Your task to perform on an android device: Open calendar and show me the fourth week of next month Image 0: 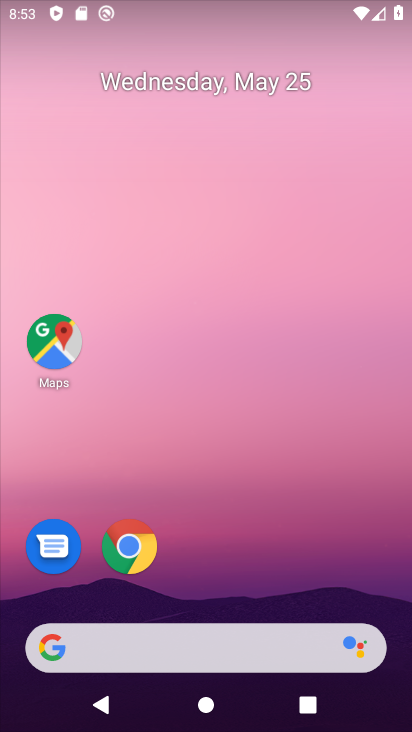
Step 0: drag from (341, 584) to (279, 298)
Your task to perform on an android device: Open calendar and show me the fourth week of next month Image 1: 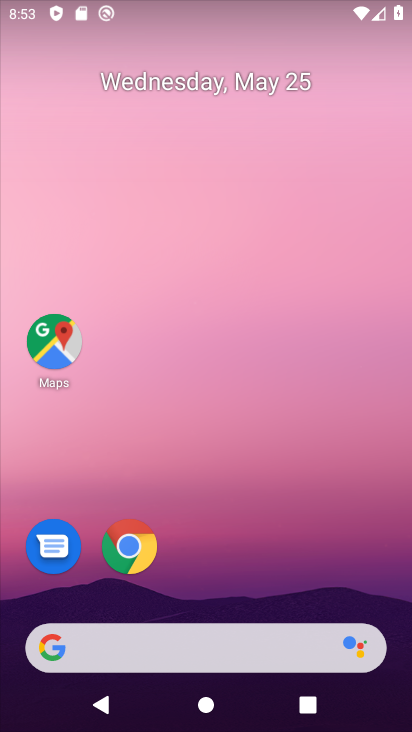
Step 1: drag from (199, 437) to (206, 152)
Your task to perform on an android device: Open calendar and show me the fourth week of next month Image 2: 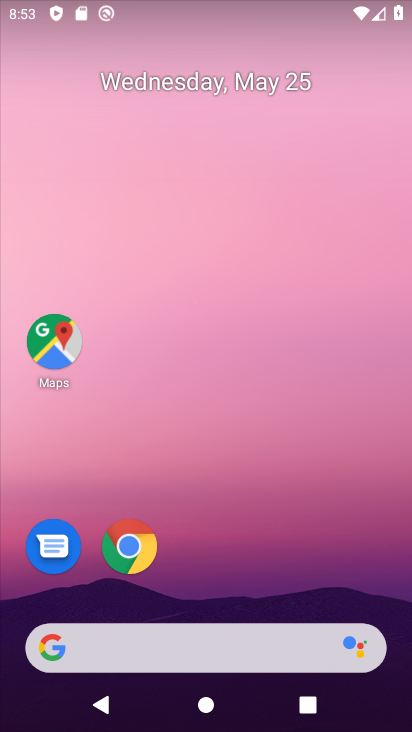
Step 2: drag from (274, 606) to (280, 266)
Your task to perform on an android device: Open calendar and show me the fourth week of next month Image 3: 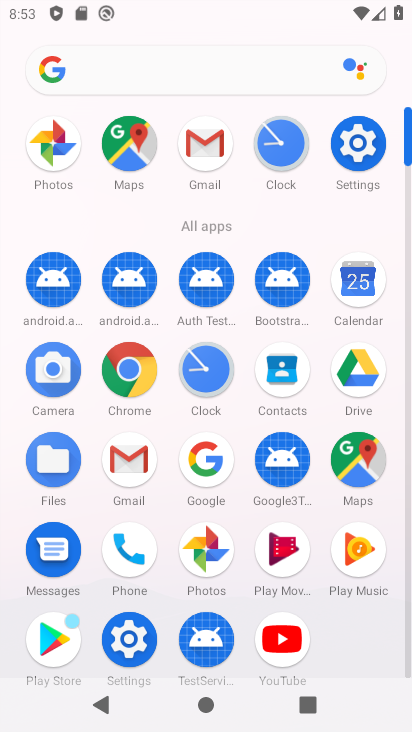
Step 3: click (369, 280)
Your task to perform on an android device: Open calendar and show me the fourth week of next month Image 4: 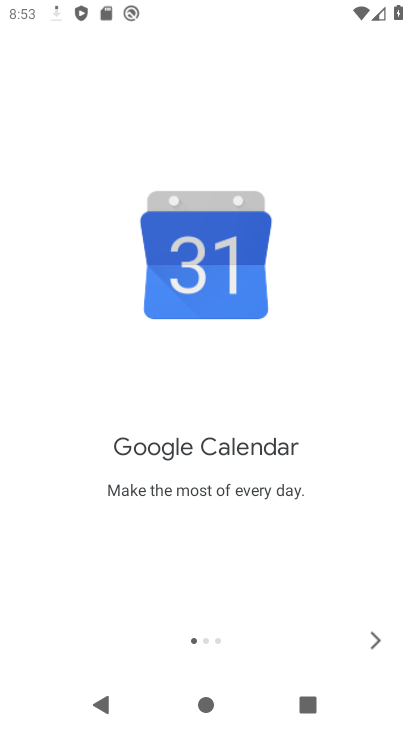
Step 4: click (369, 637)
Your task to perform on an android device: Open calendar and show me the fourth week of next month Image 5: 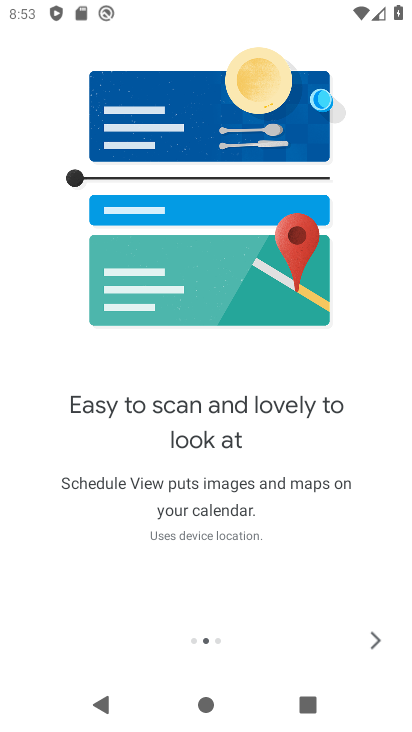
Step 5: click (369, 637)
Your task to perform on an android device: Open calendar and show me the fourth week of next month Image 6: 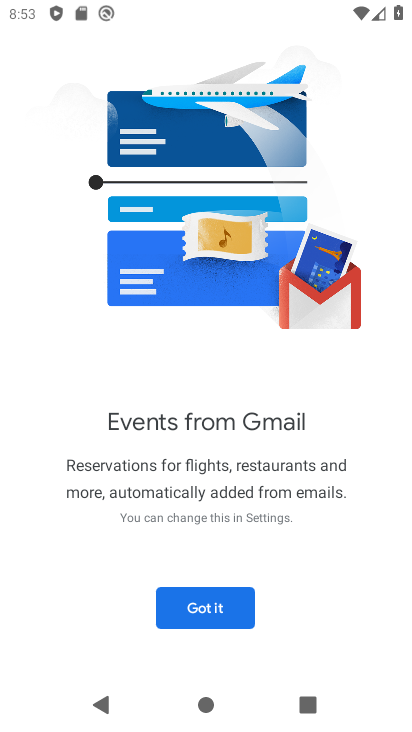
Step 6: click (367, 635)
Your task to perform on an android device: Open calendar and show me the fourth week of next month Image 7: 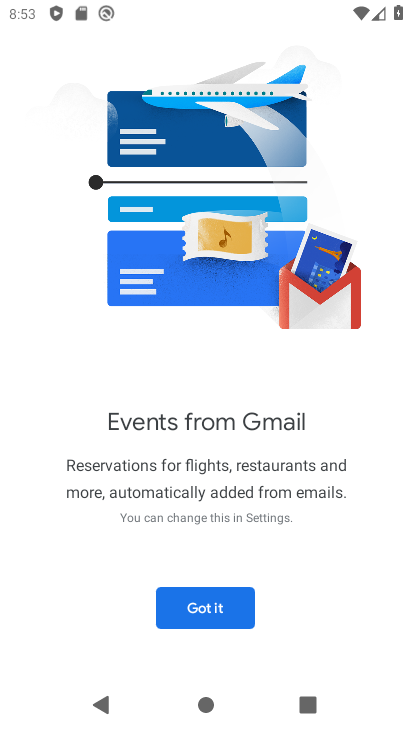
Step 7: click (224, 607)
Your task to perform on an android device: Open calendar and show me the fourth week of next month Image 8: 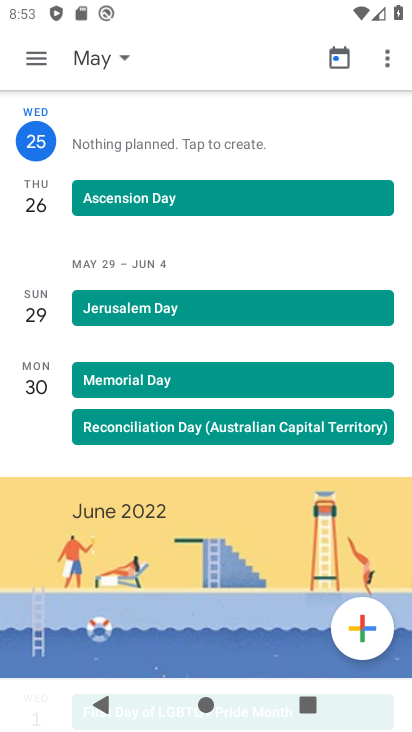
Step 8: click (35, 63)
Your task to perform on an android device: Open calendar and show me the fourth week of next month Image 9: 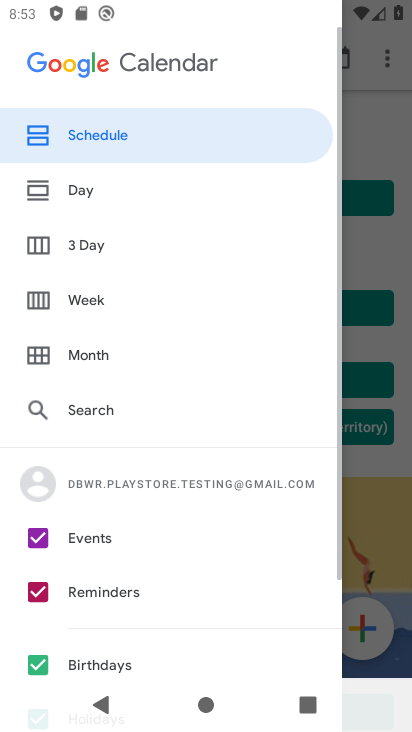
Step 9: click (103, 354)
Your task to perform on an android device: Open calendar and show me the fourth week of next month Image 10: 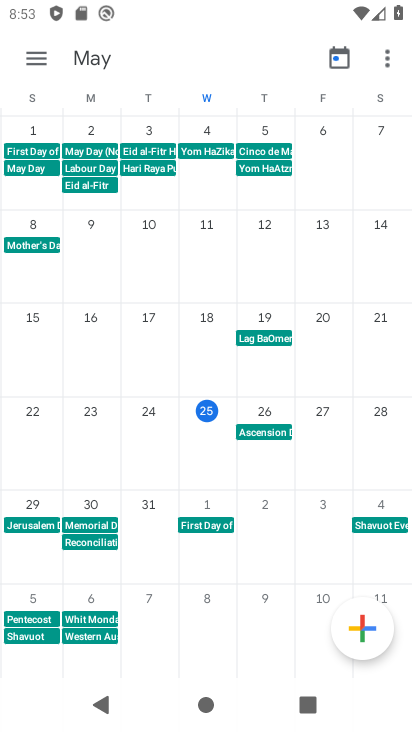
Step 10: task complete